Your task to perform on an android device: change alarm snooze length Image 0: 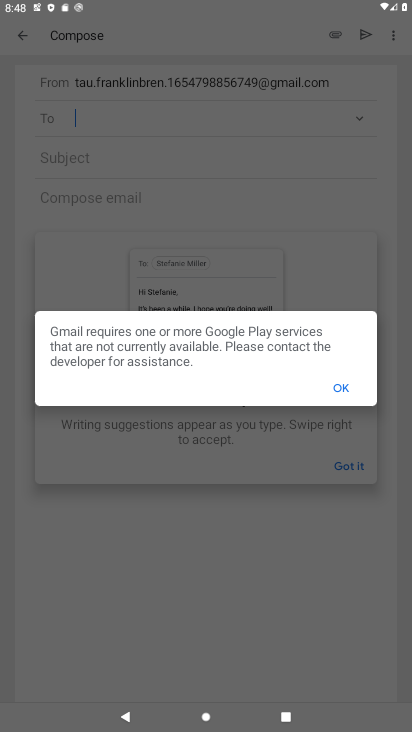
Step 0: press home button
Your task to perform on an android device: change alarm snooze length Image 1: 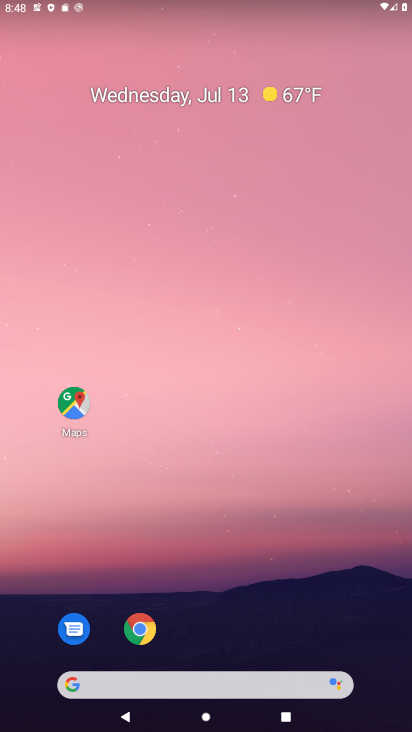
Step 1: drag from (234, 644) to (186, 87)
Your task to perform on an android device: change alarm snooze length Image 2: 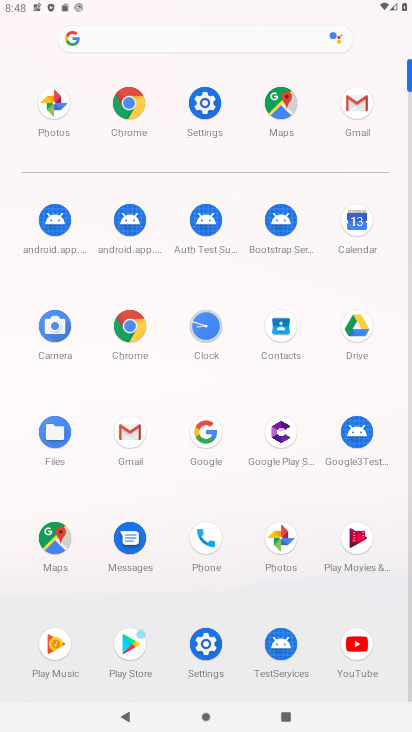
Step 2: click (186, 352)
Your task to perform on an android device: change alarm snooze length Image 3: 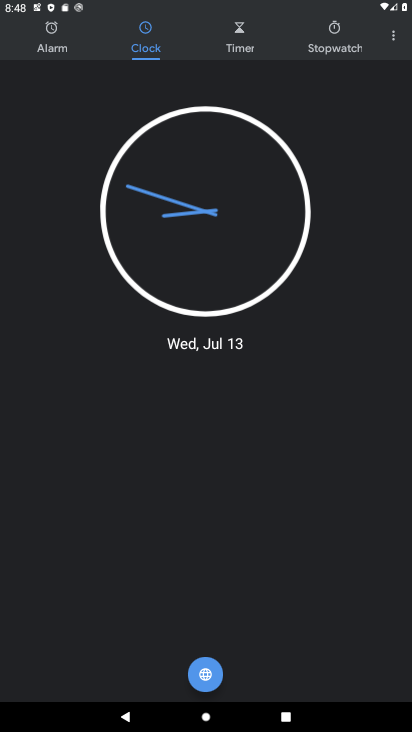
Step 3: click (397, 41)
Your task to perform on an android device: change alarm snooze length Image 4: 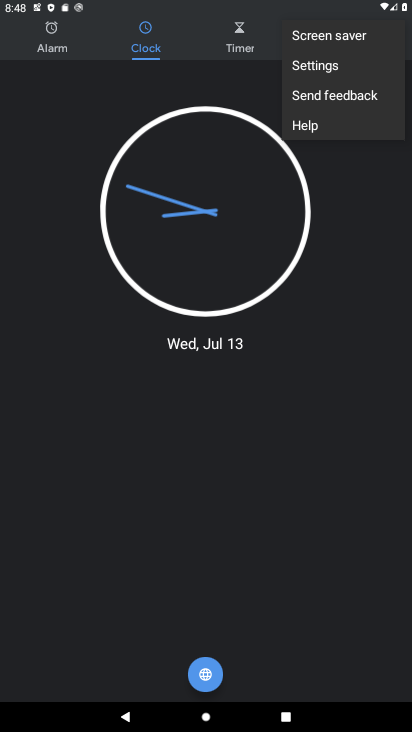
Step 4: click (302, 69)
Your task to perform on an android device: change alarm snooze length Image 5: 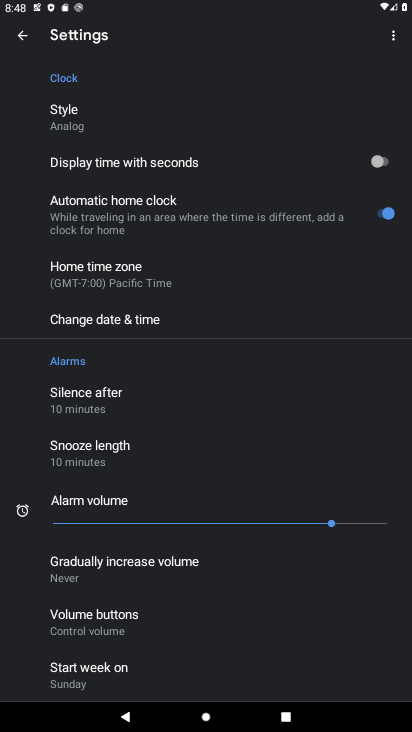
Step 5: click (122, 444)
Your task to perform on an android device: change alarm snooze length Image 6: 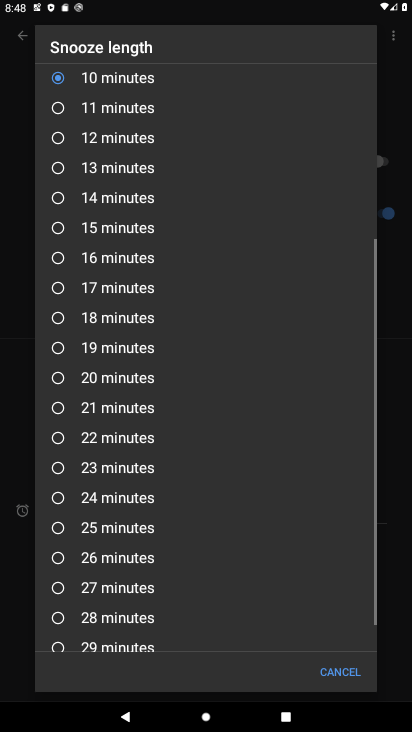
Step 6: click (66, 232)
Your task to perform on an android device: change alarm snooze length Image 7: 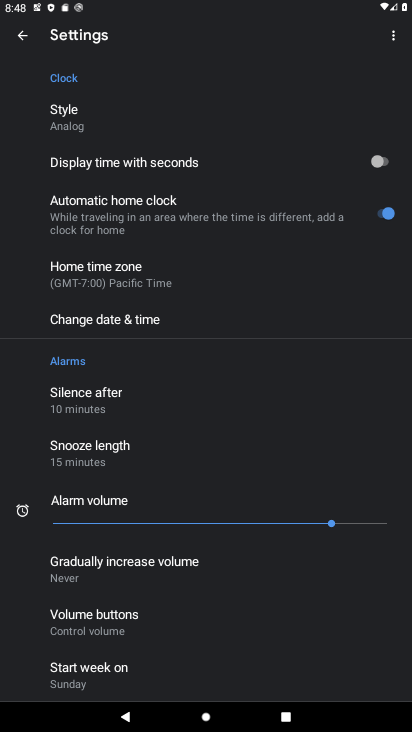
Step 7: task complete